Your task to perform on an android device: Open Chrome and go to settings Image 0: 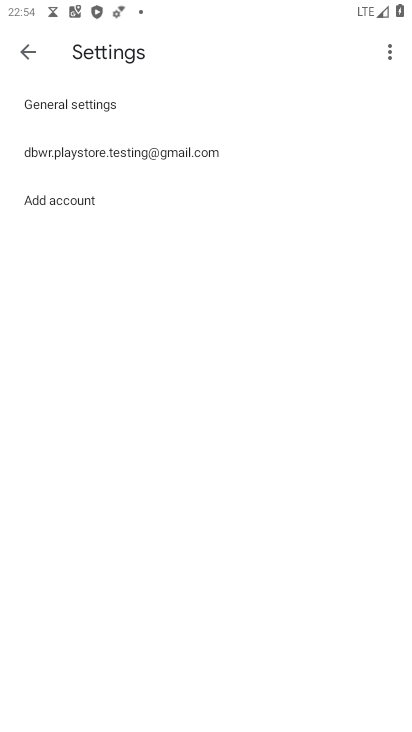
Step 0: press back button
Your task to perform on an android device: Open Chrome and go to settings Image 1: 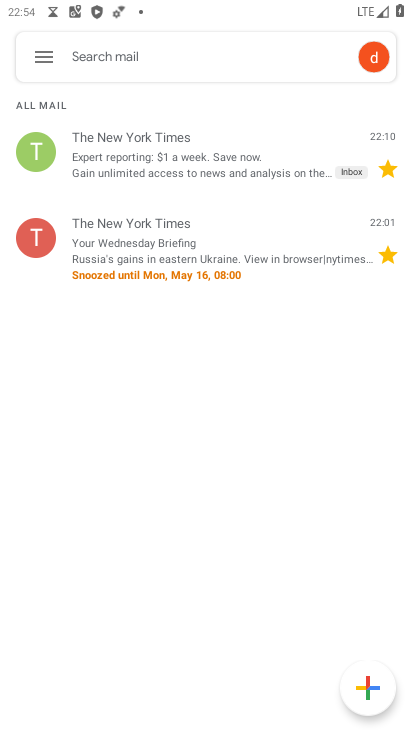
Step 1: press back button
Your task to perform on an android device: Open Chrome and go to settings Image 2: 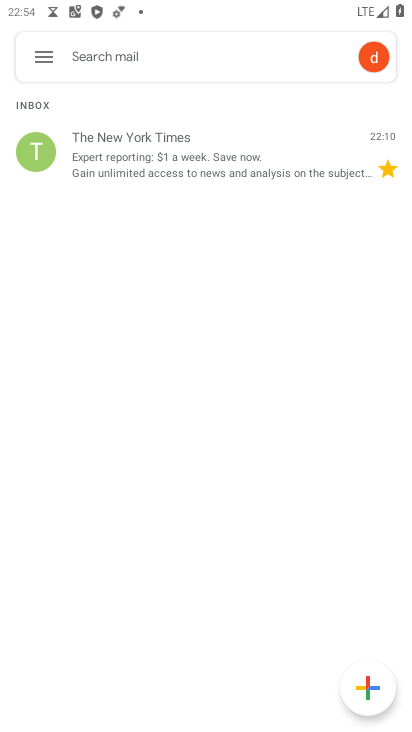
Step 2: press back button
Your task to perform on an android device: Open Chrome and go to settings Image 3: 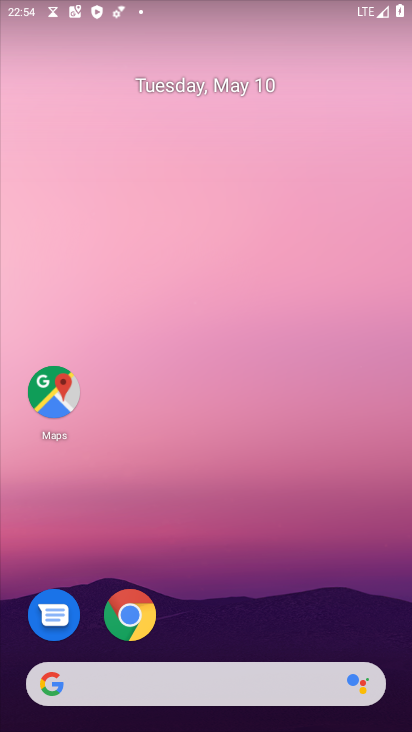
Step 3: click (128, 618)
Your task to perform on an android device: Open Chrome and go to settings Image 4: 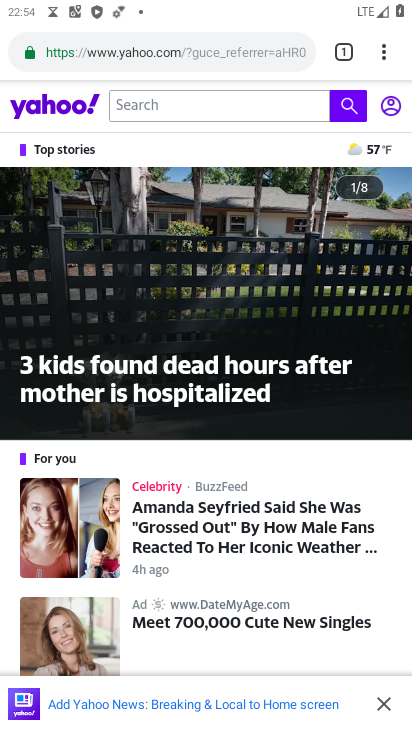
Step 4: click (384, 52)
Your task to perform on an android device: Open Chrome and go to settings Image 5: 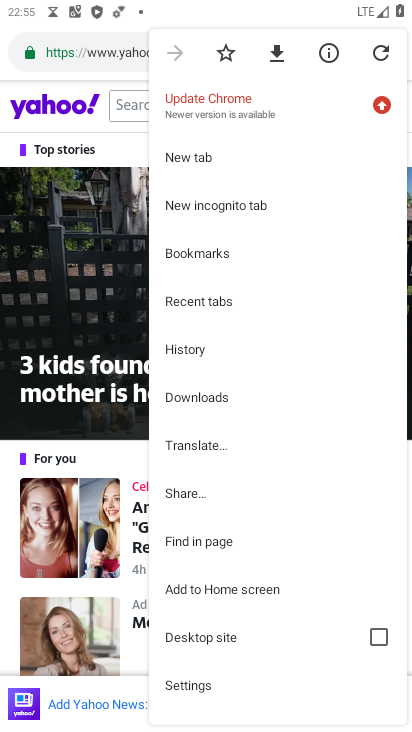
Step 5: click (186, 689)
Your task to perform on an android device: Open Chrome and go to settings Image 6: 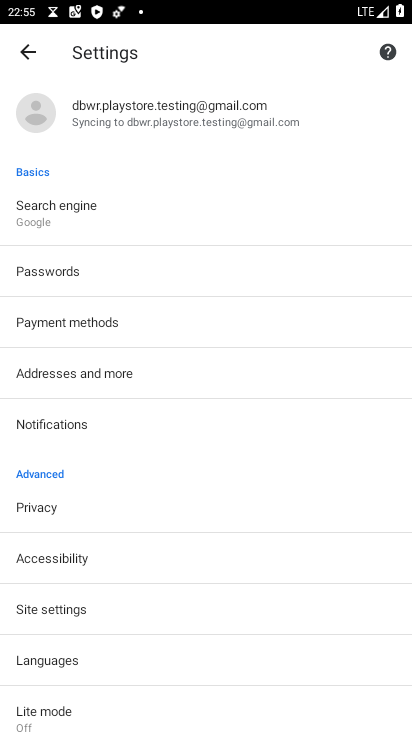
Step 6: task complete